Your task to perform on an android device: turn on location history Image 0: 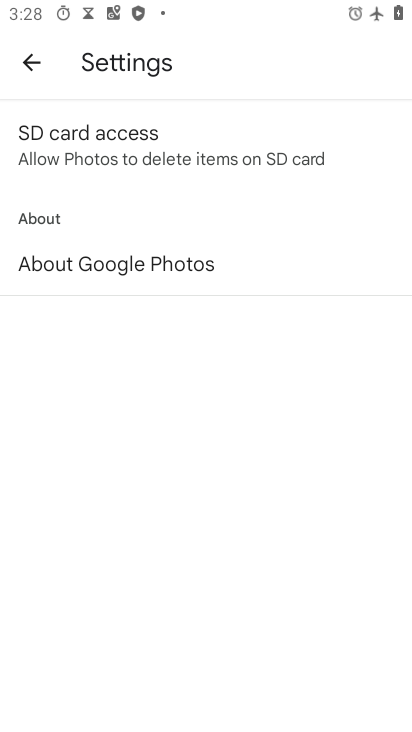
Step 0: press back button
Your task to perform on an android device: turn on location history Image 1: 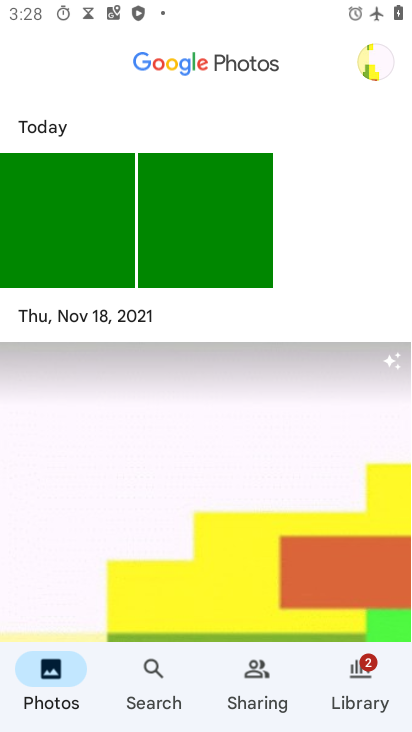
Step 1: press home button
Your task to perform on an android device: turn on location history Image 2: 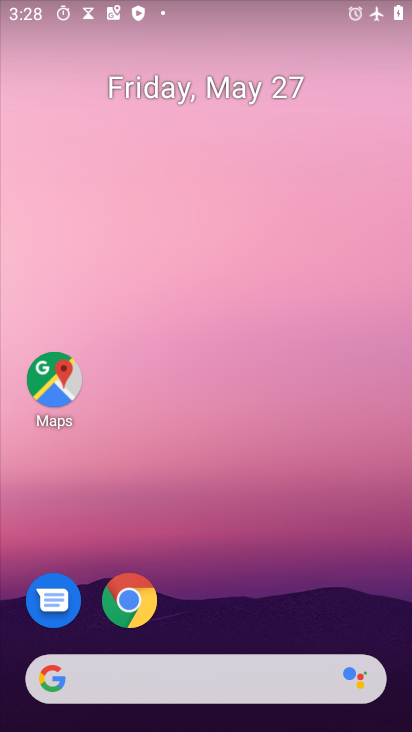
Step 2: drag from (264, 594) to (284, 13)
Your task to perform on an android device: turn on location history Image 3: 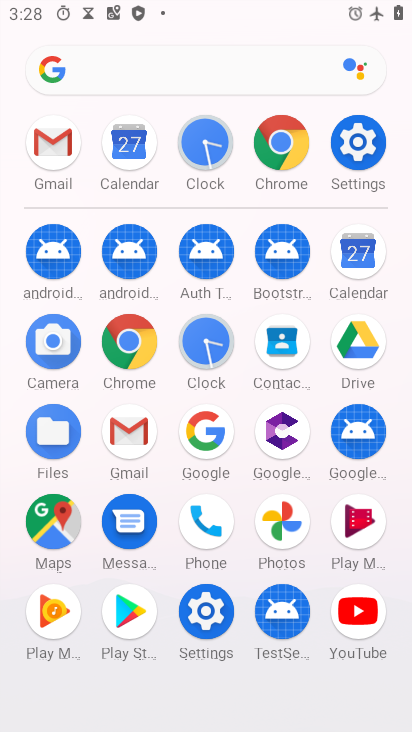
Step 3: click (354, 135)
Your task to perform on an android device: turn on location history Image 4: 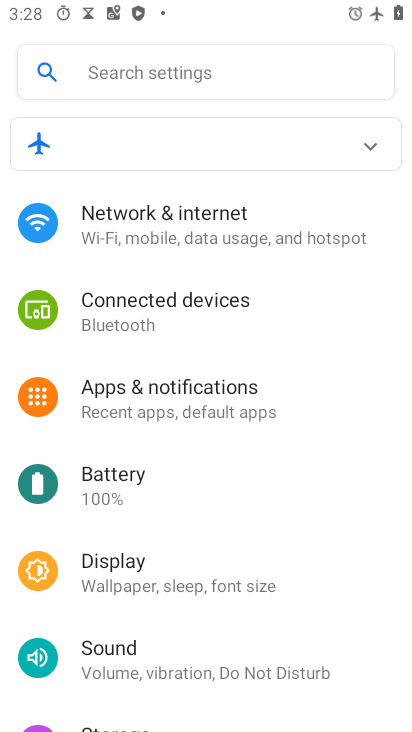
Step 4: drag from (288, 602) to (314, 234)
Your task to perform on an android device: turn on location history Image 5: 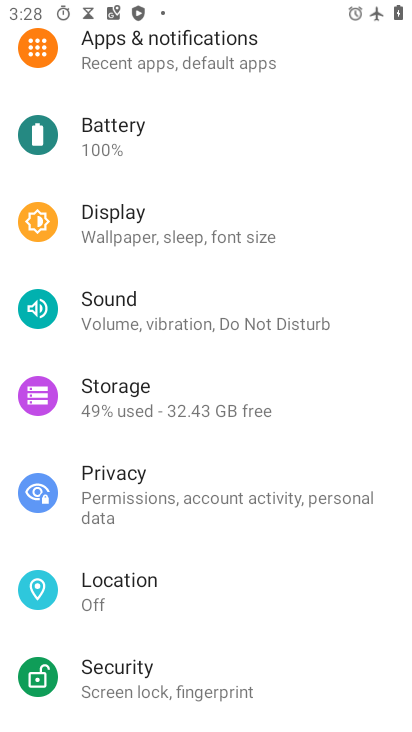
Step 5: click (117, 587)
Your task to perform on an android device: turn on location history Image 6: 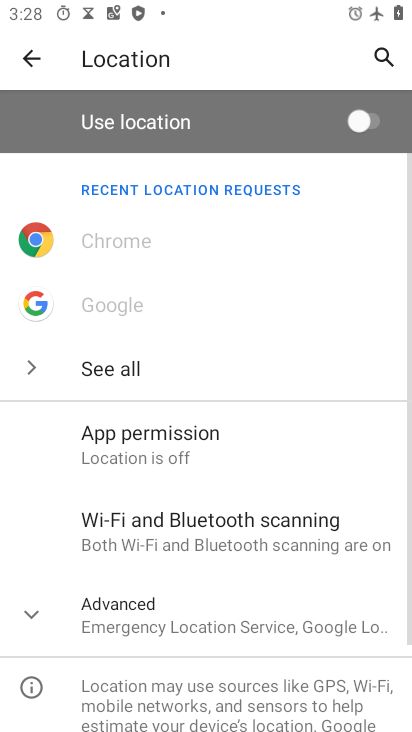
Step 6: click (17, 618)
Your task to perform on an android device: turn on location history Image 7: 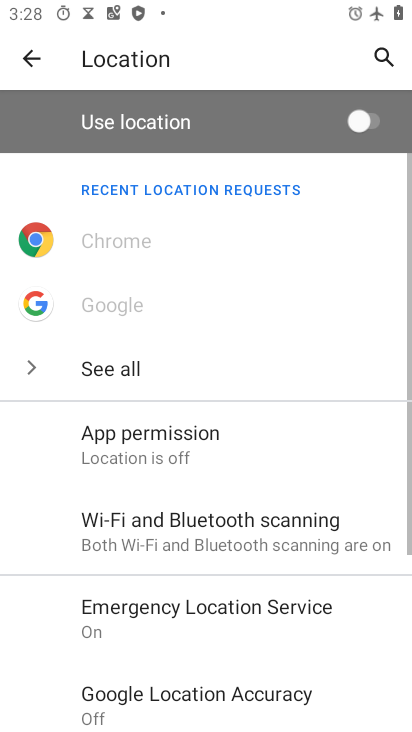
Step 7: drag from (291, 624) to (288, 230)
Your task to perform on an android device: turn on location history Image 8: 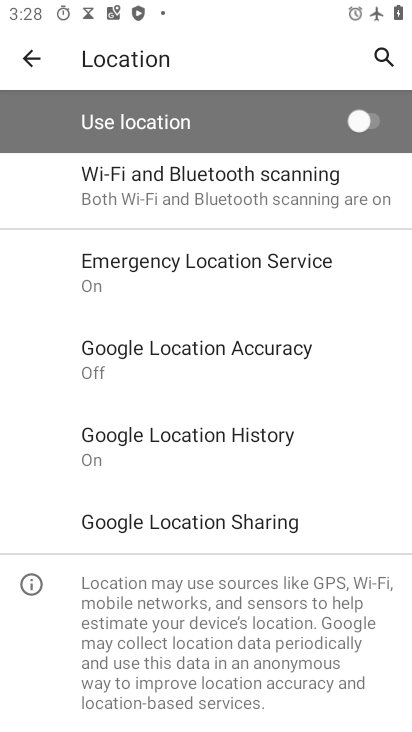
Step 8: click (219, 442)
Your task to perform on an android device: turn on location history Image 9: 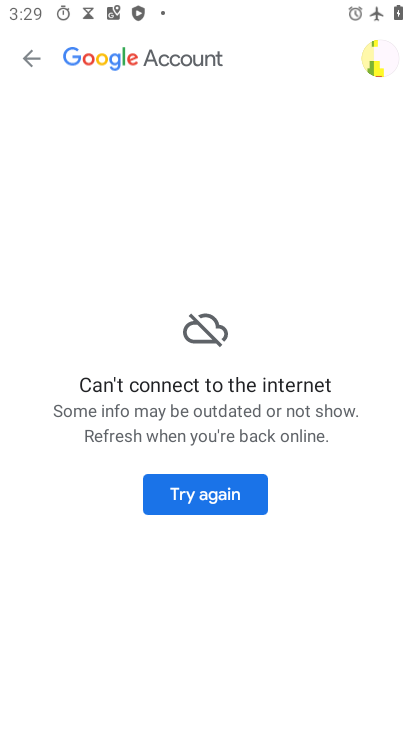
Step 9: task complete